Your task to perform on an android device: Go to Amazon Image 0: 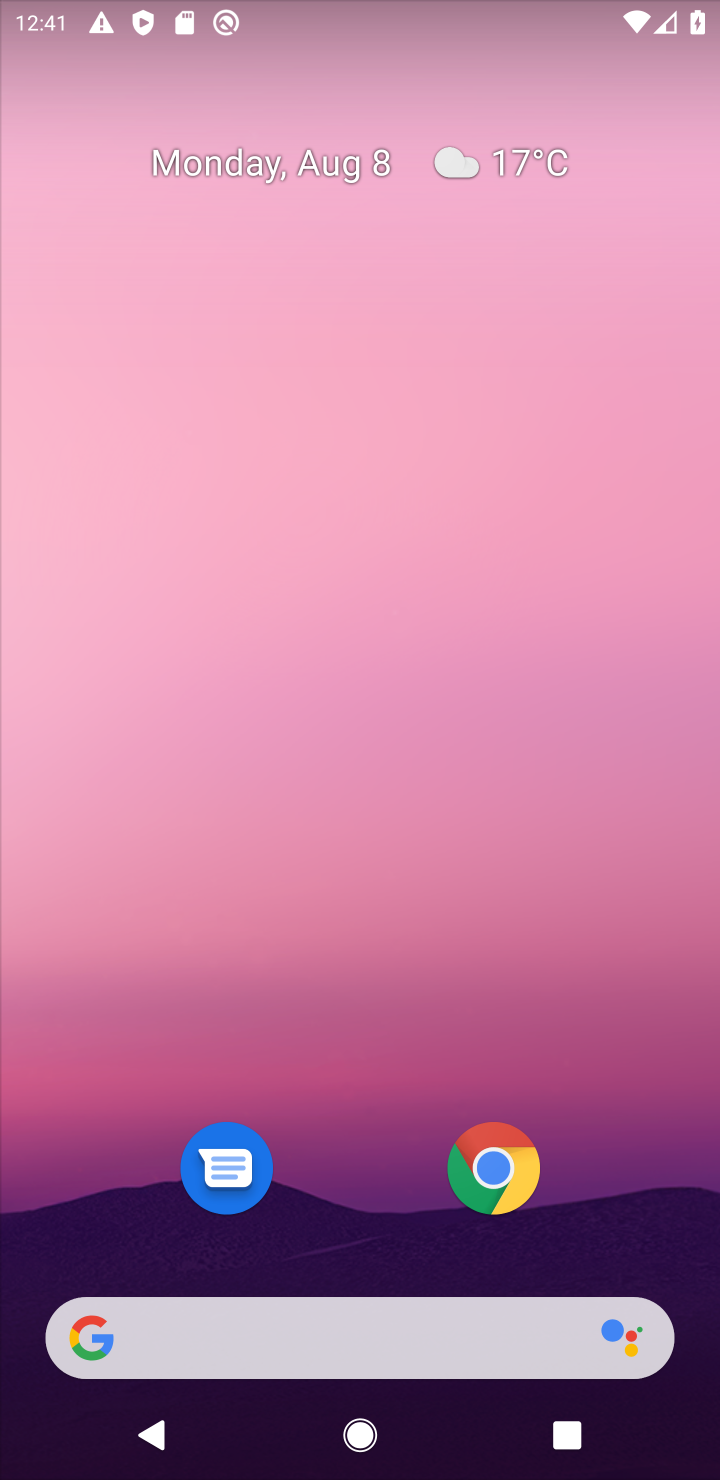
Step 0: click (177, 1343)
Your task to perform on an android device: Go to Amazon Image 1: 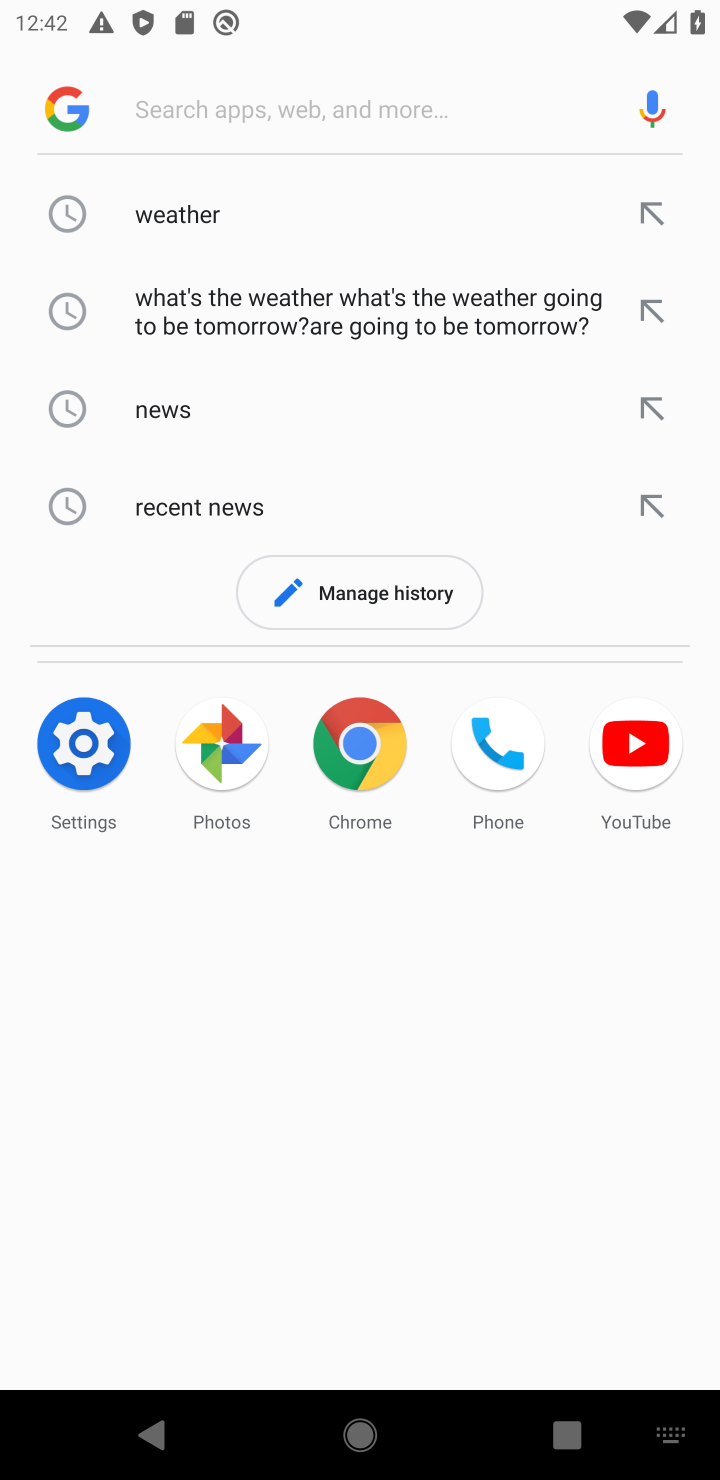
Step 1: type "Amazon"
Your task to perform on an android device: Go to Amazon Image 2: 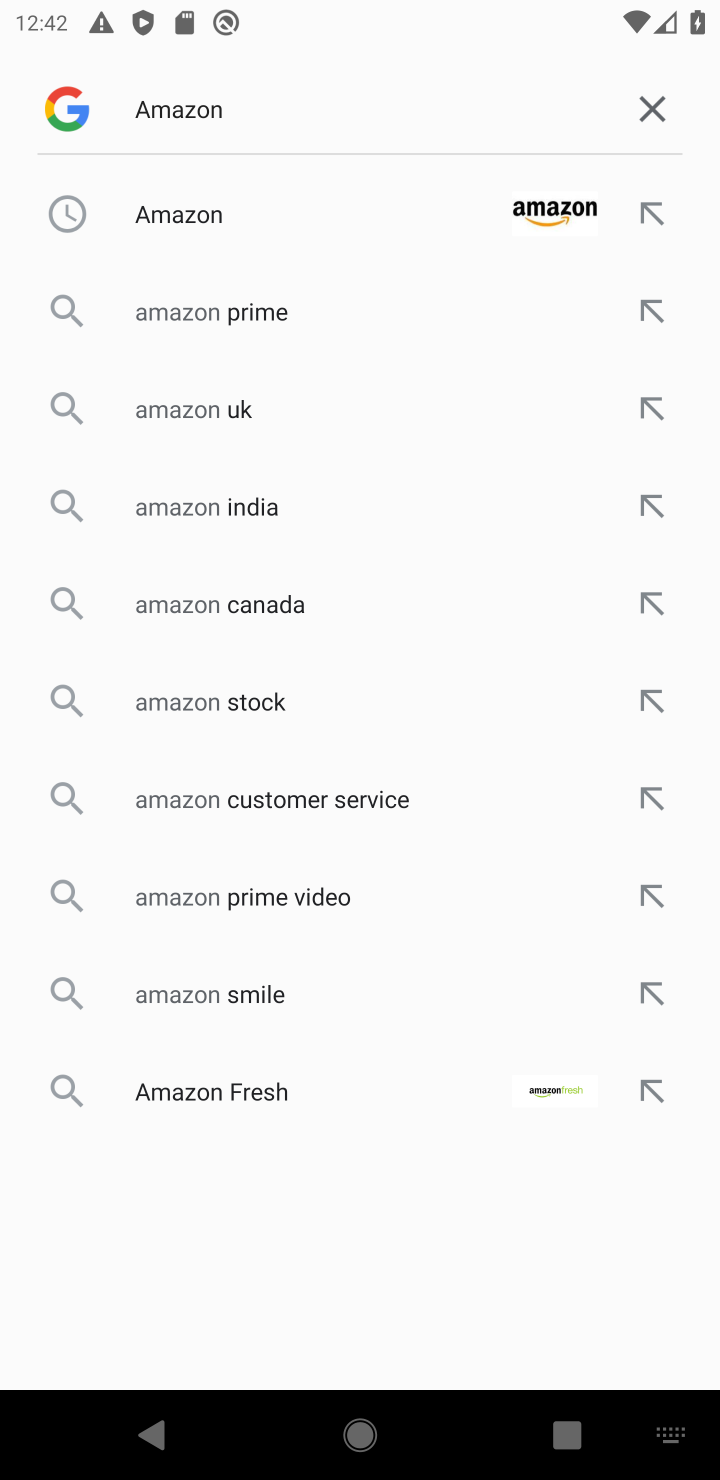
Step 2: click (204, 217)
Your task to perform on an android device: Go to Amazon Image 3: 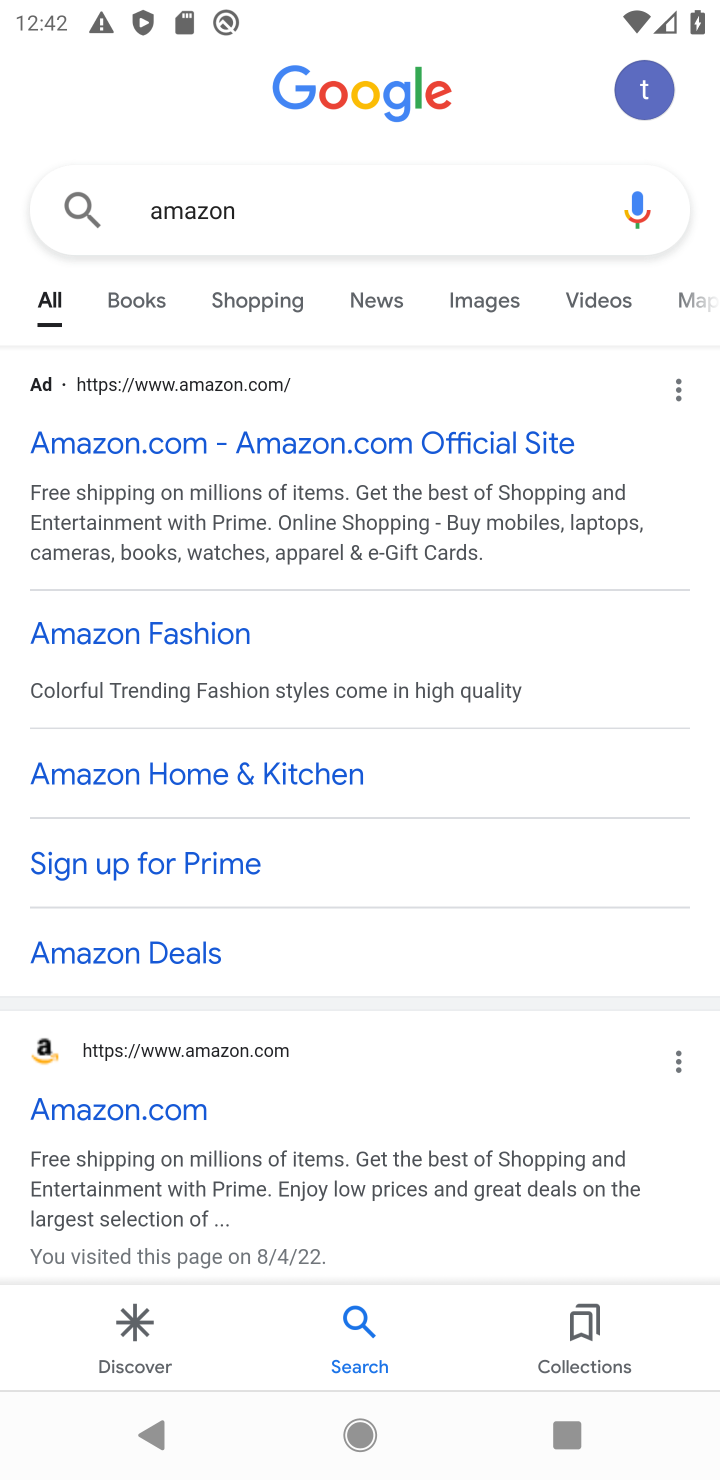
Step 3: task complete